Your task to perform on an android device: empty trash in the gmail app Image 0: 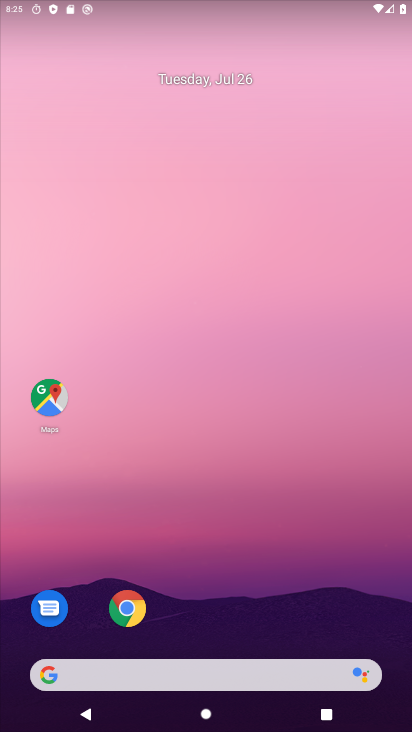
Step 0: drag from (332, 668) to (377, 58)
Your task to perform on an android device: empty trash in the gmail app Image 1: 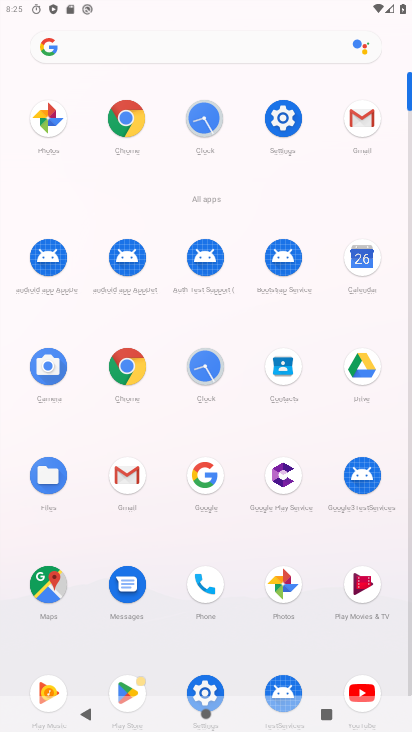
Step 1: click (111, 484)
Your task to perform on an android device: empty trash in the gmail app Image 2: 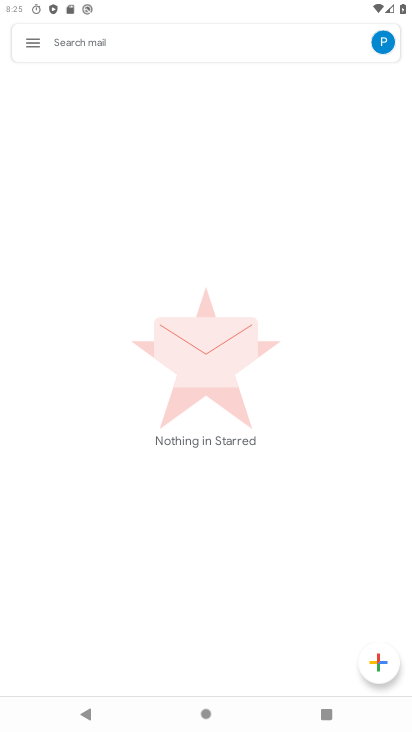
Step 2: click (32, 40)
Your task to perform on an android device: empty trash in the gmail app Image 3: 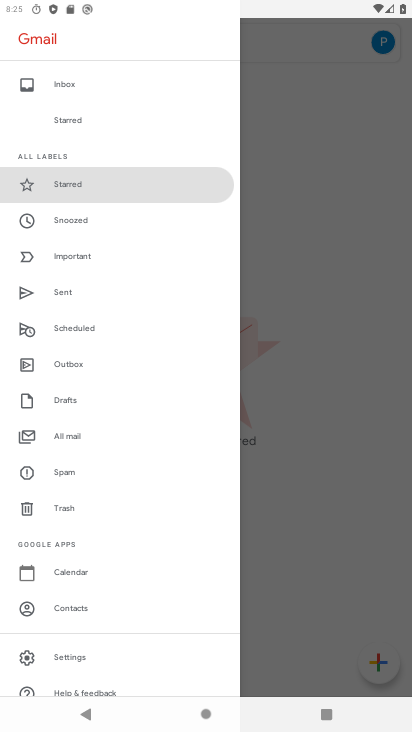
Step 3: click (78, 508)
Your task to perform on an android device: empty trash in the gmail app Image 4: 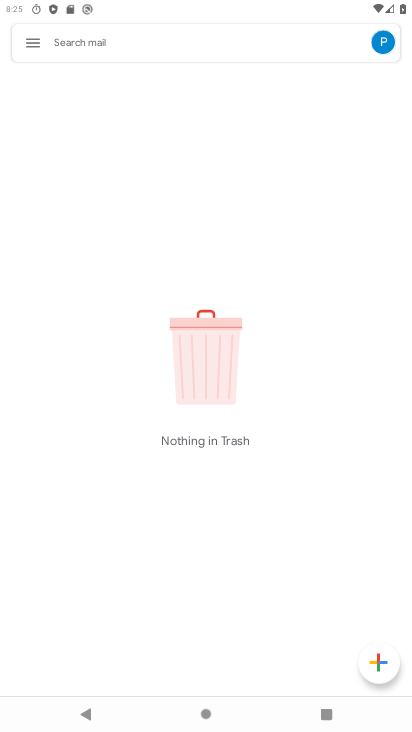
Step 4: task complete